Your task to perform on an android device: check data usage Image 0: 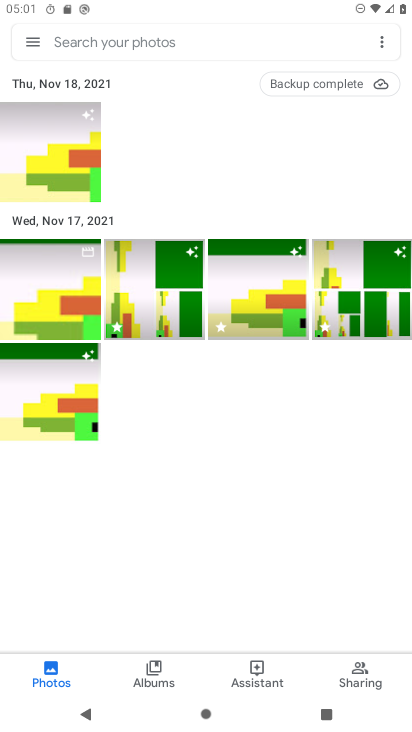
Step 0: press home button
Your task to perform on an android device: check data usage Image 1: 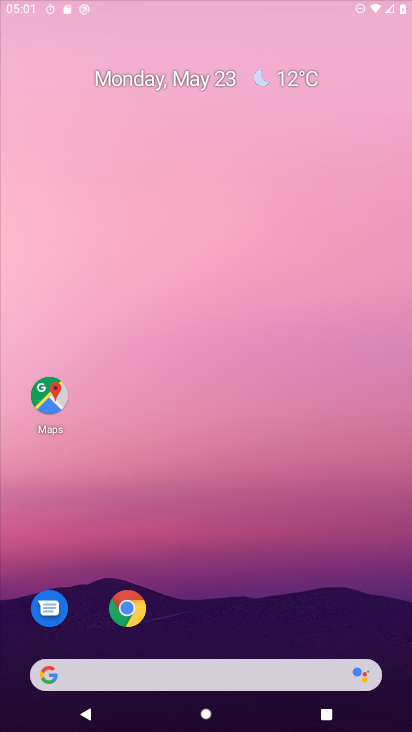
Step 1: drag from (333, 554) to (192, 15)
Your task to perform on an android device: check data usage Image 2: 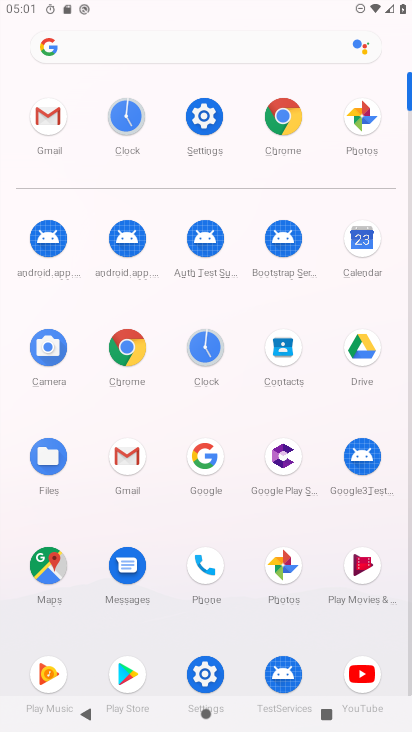
Step 2: click (207, 119)
Your task to perform on an android device: check data usage Image 3: 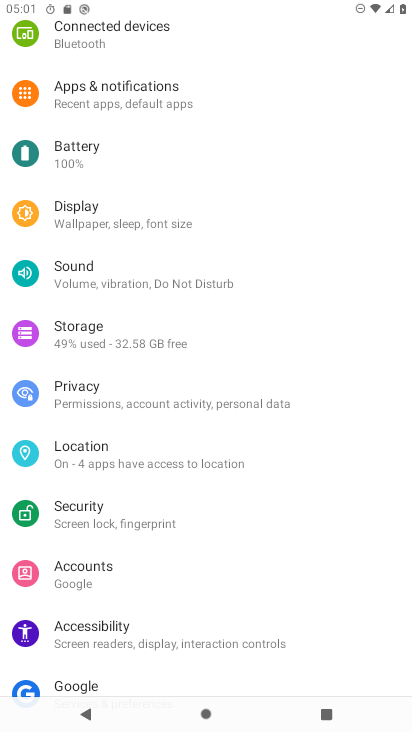
Step 3: drag from (155, 127) to (194, 598)
Your task to perform on an android device: check data usage Image 4: 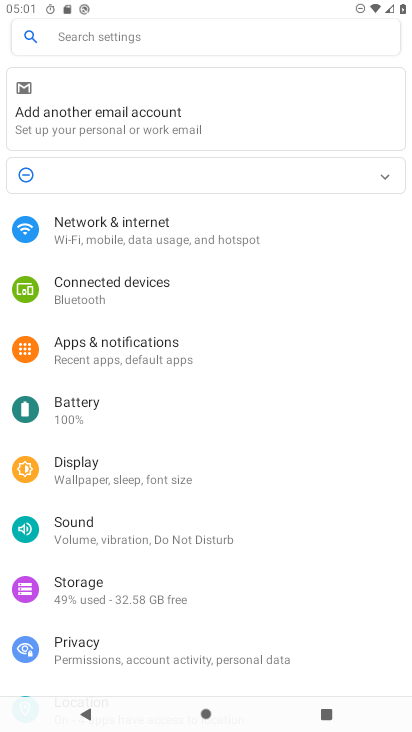
Step 4: click (196, 231)
Your task to perform on an android device: check data usage Image 5: 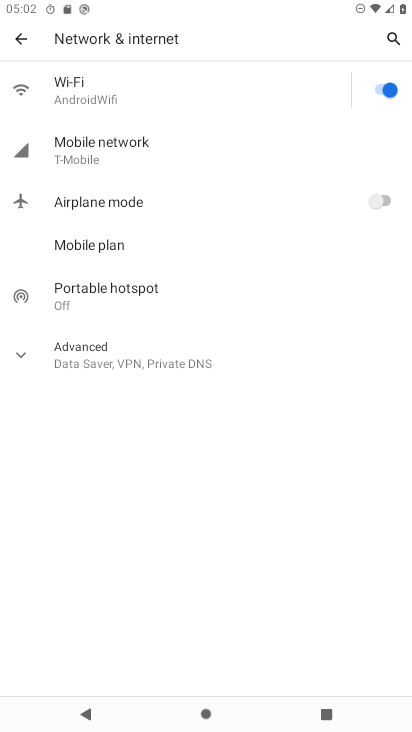
Step 5: click (210, 170)
Your task to perform on an android device: check data usage Image 6: 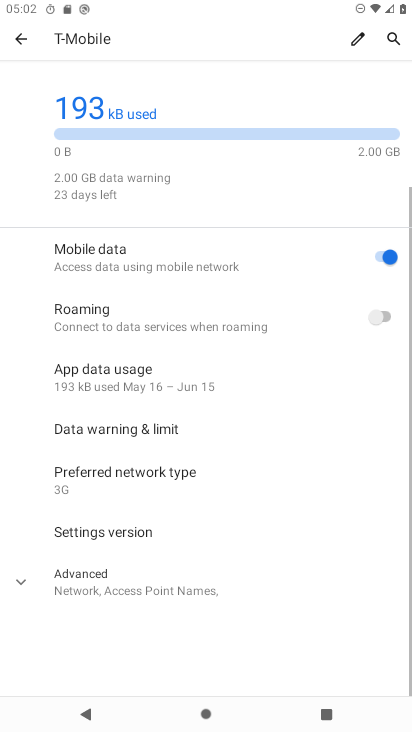
Step 6: task complete